Your task to perform on an android device: set an alarm Image 0: 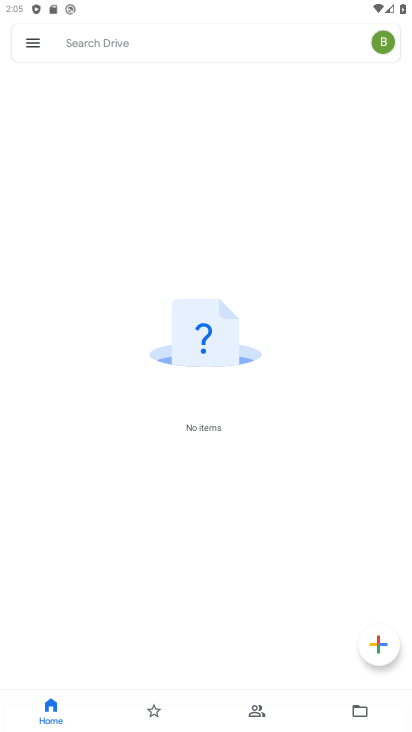
Step 0: press home button
Your task to perform on an android device: set an alarm Image 1: 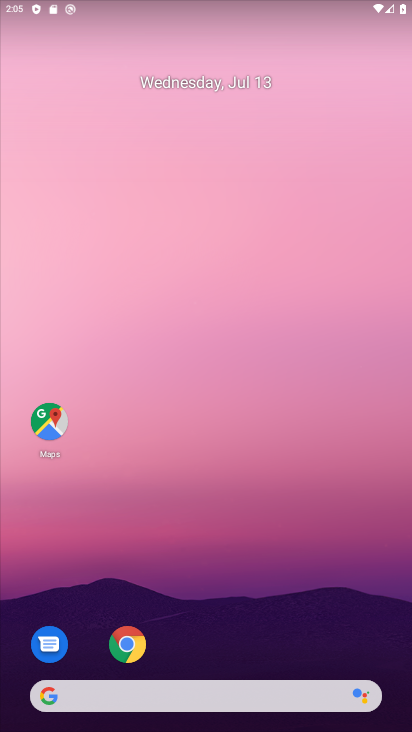
Step 1: drag from (274, 696) to (317, 26)
Your task to perform on an android device: set an alarm Image 2: 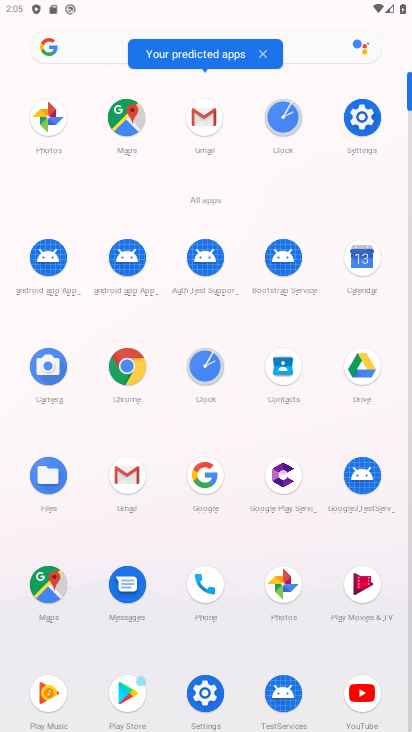
Step 2: click (278, 135)
Your task to perform on an android device: set an alarm Image 3: 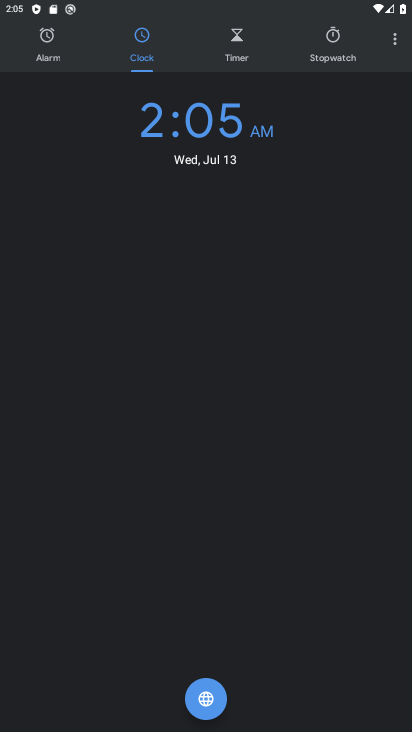
Step 3: click (49, 60)
Your task to perform on an android device: set an alarm Image 4: 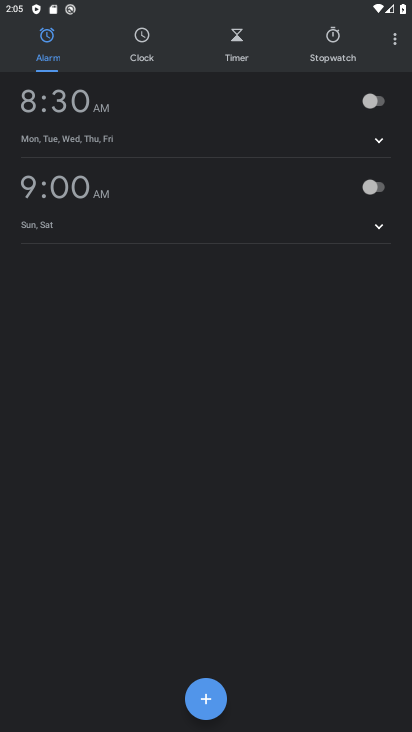
Step 4: click (223, 694)
Your task to perform on an android device: set an alarm Image 5: 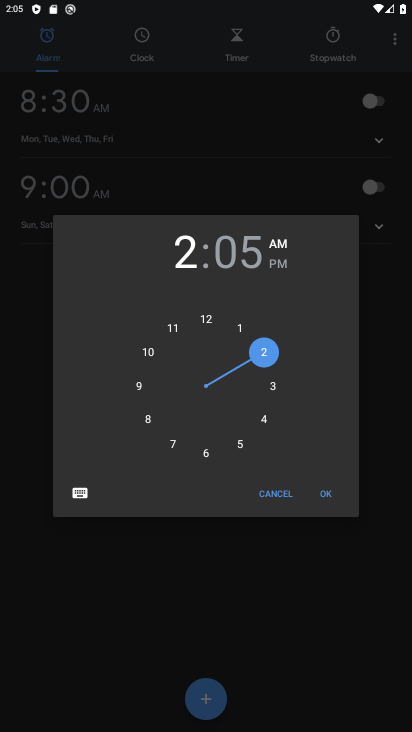
Step 5: click (325, 487)
Your task to perform on an android device: set an alarm Image 6: 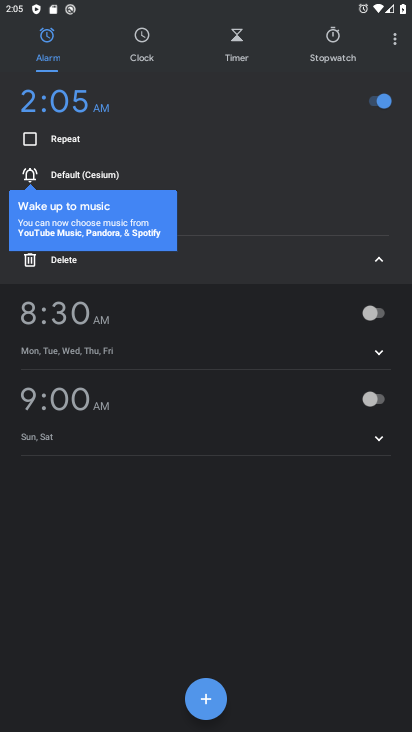
Step 6: task complete